Your task to perform on an android device: turn off smart reply in the gmail app Image 0: 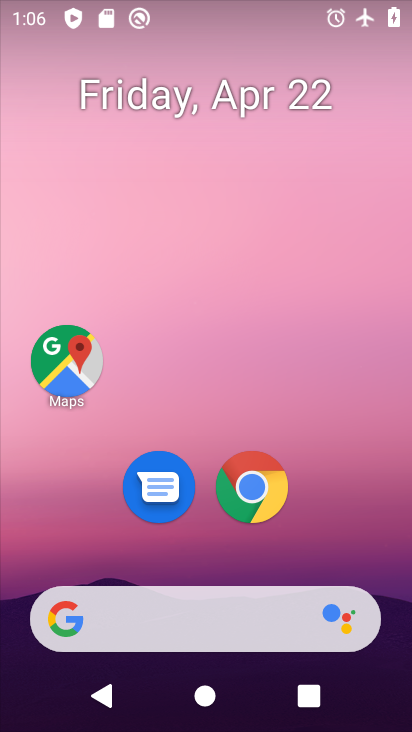
Step 0: drag from (196, 565) to (200, 156)
Your task to perform on an android device: turn off smart reply in the gmail app Image 1: 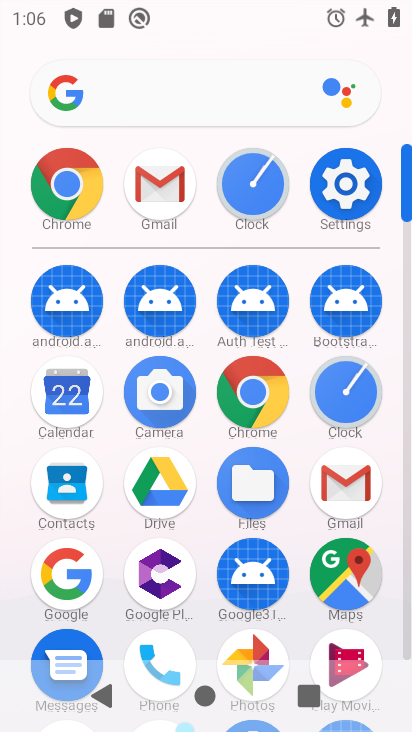
Step 1: click (159, 195)
Your task to perform on an android device: turn off smart reply in the gmail app Image 2: 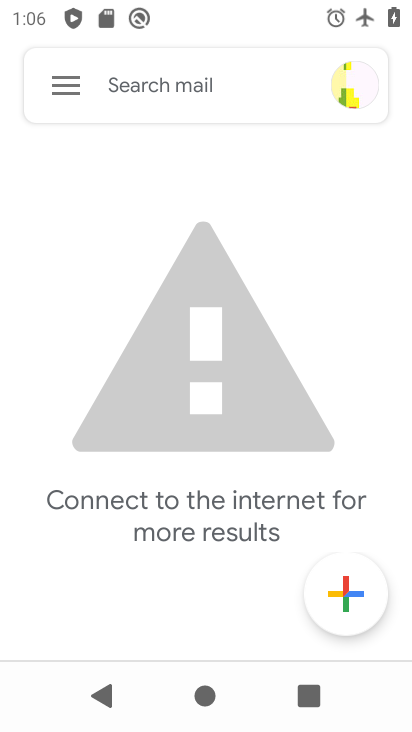
Step 2: click (59, 82)
Your task to perform on an android device: turn off smart reply in the gmail app Image 3: 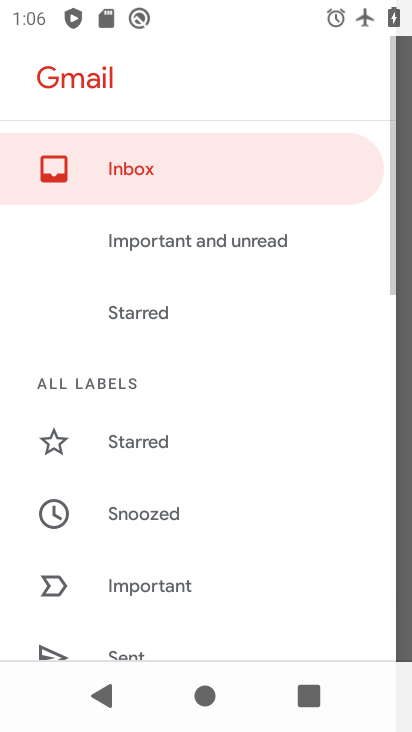
Step 3: drag from (200, 592) to (210, 358)
Your task to perform on an android device: turn off smart reply in the gmail app Image 4: 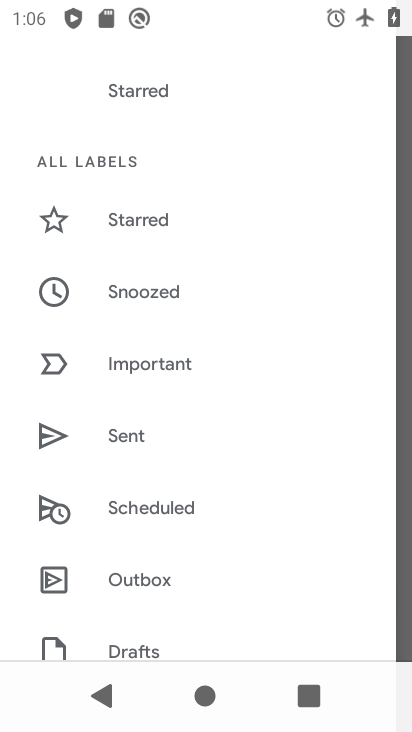
Step 4: drag from (203, 599) to (220, 400)
Your task to perform on an android device: turn off smart reply in the gmail app Image 5: 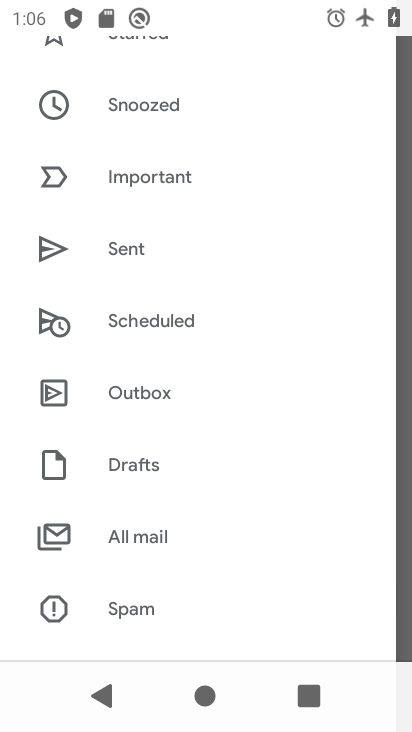
Step 5: drag from (207, 552) to (240, 318)
Your task to perform on an android device: turn off smart reply in the gmail app Image 6: 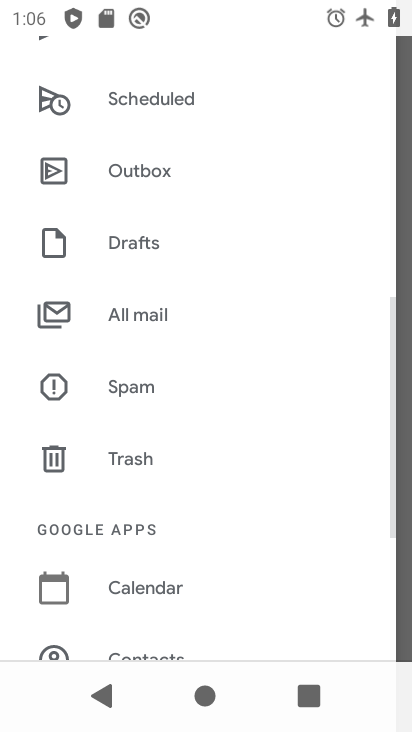
Step 6: drag from (207, 566) to (229, 349)
Your task to perform on an android device: turn off smart reply in the gmail app Image 7: 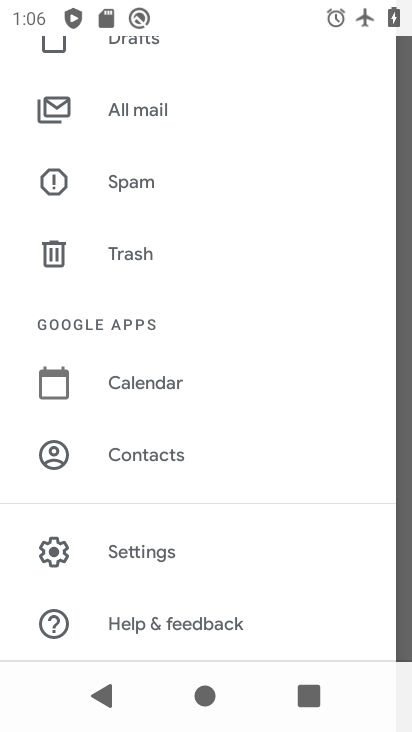
Step 7: click (184, 546)
Your task to perform on an android device: turn off smart reply in the gmail app Image 8: 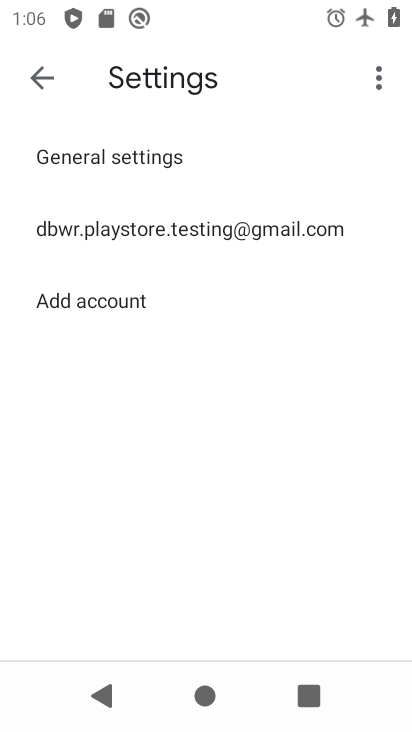
Step 8: click (198, 234)
Your task to perform on an android device: turn off smart reply in the gmail app Image 9: 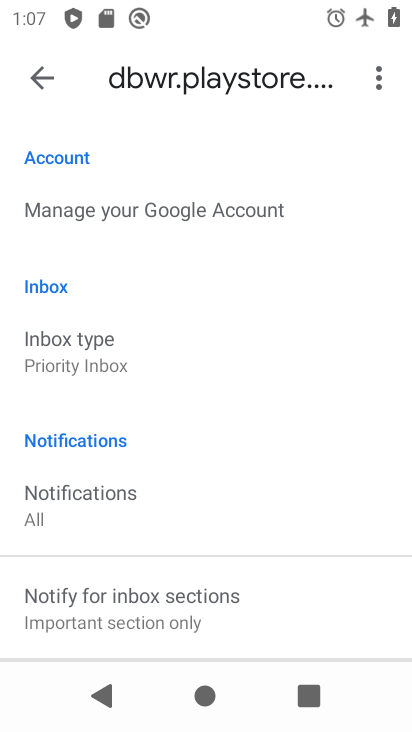
Step 9: drag from (198, 516) to (236, 350)
Your task to perform on an android device: turn off smart reply in the gmail app Image 10: 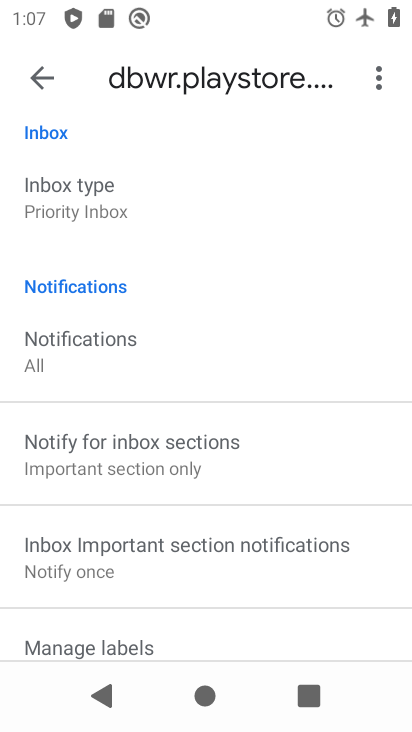
Step 10: drag from (217, 575) to (268, 269)
Your task to perform on an android device: turn off smart reply in the gmail app Image 11: 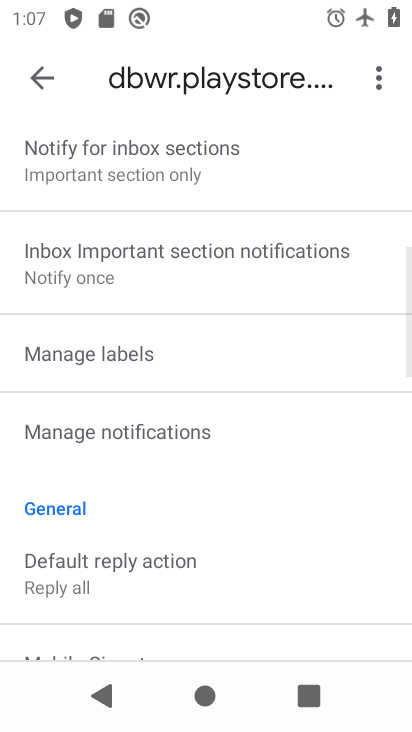
Step 11: drag from (249, 530) to (286, 260)
Your task to perform on an android device: turn off smart reply in the gmail app Image 12: 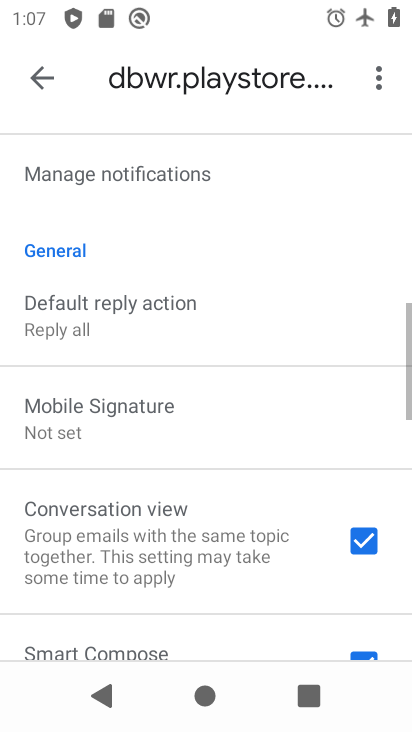
Step 12: drag from (258, 459) to (282, 244)
Your task to perform on an android device: turn off smart reply in the gmail app Image 13: 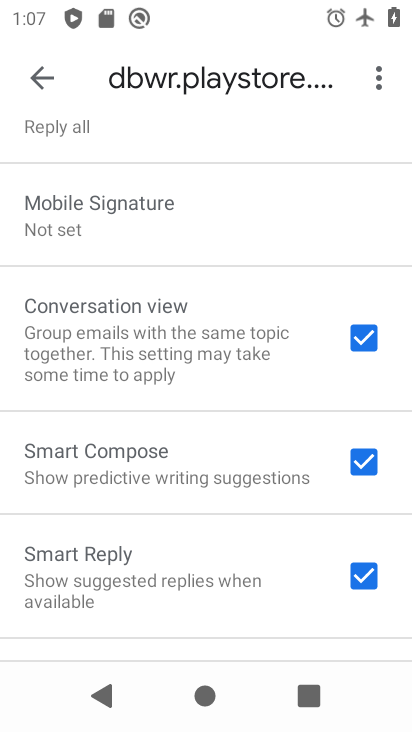
Step 13: click (374, 576)
Your task to perform on an android device: turn off smart reply in the gmail app Image 14: 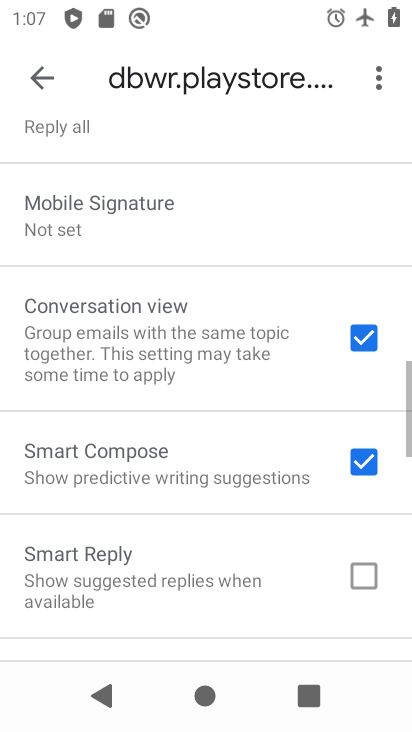
Step 14: task complete